Your task to perform on an android device: Open network settings Image 0: 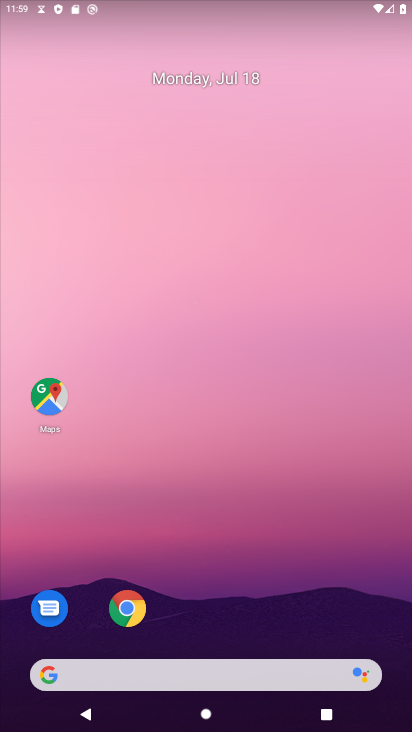
Step 0: drag from (369, 628) to (408, 102)
Your task to perform on an android device: Open network settings Image 1: 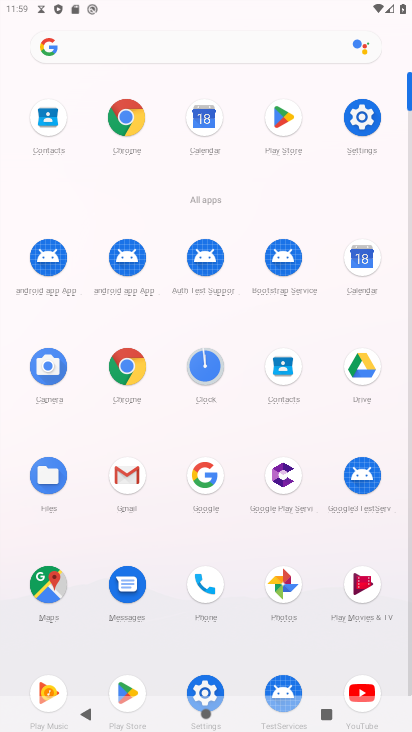
Step 1: click (374, 106)
Your task to perform on an android device: Open network settings Image 2: 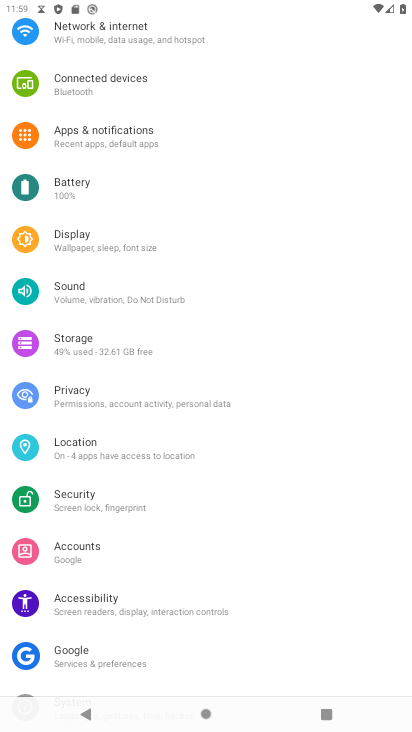
Step 2: drag from (266, 244) to (267, 595)
Your task to perform on an android device: Open network settings Image 3: 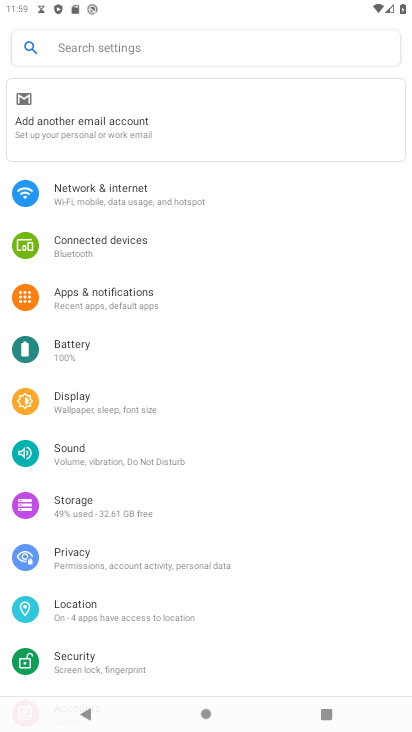
Step 3: click (161, 189)
Your task to perform on an android device: Open network settings Image 4: 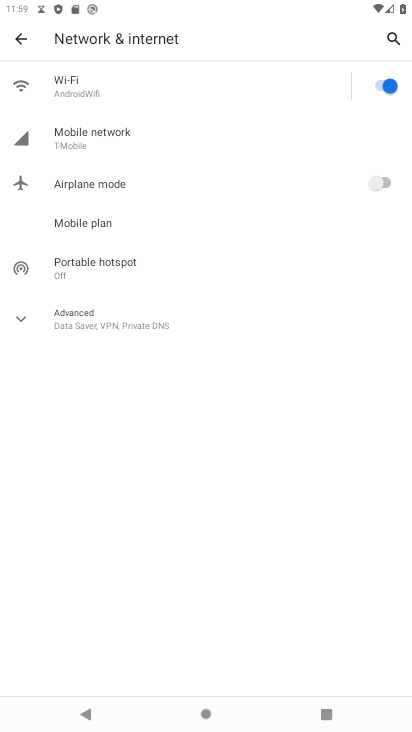
Step 4: task complete